Your task to perform on an android device: turn smart compose on in the gmail app Image 0: 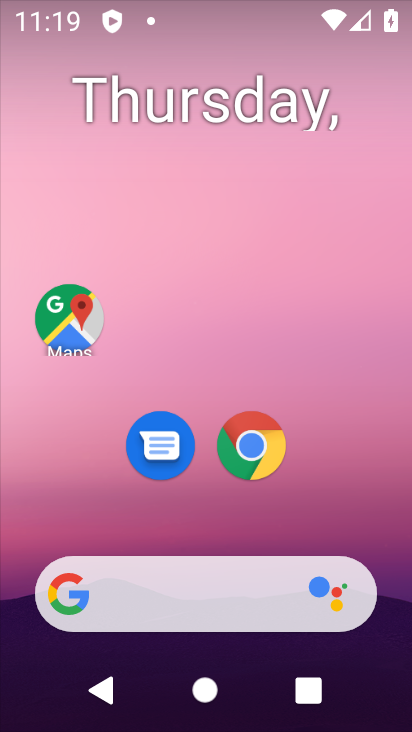
Step 0: drag from (354, 501) to (302, 109)
Your task to perform on an android device: turn smart compose on in the gmail app Image 1: 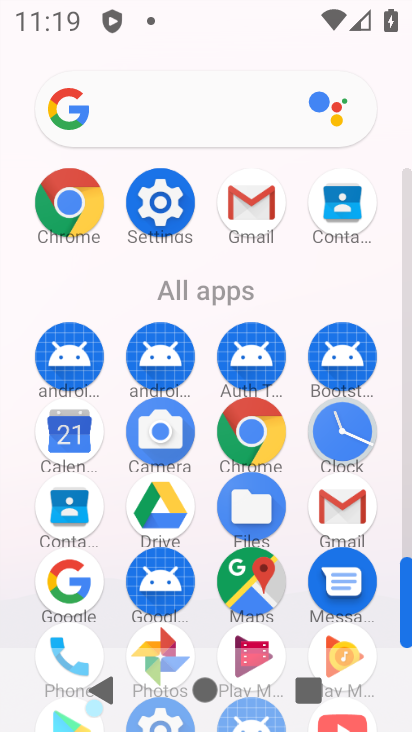
Step 1: click (252, 182)
Your task to perform on an android device: turn smart compose on in the gmail app Image 2: 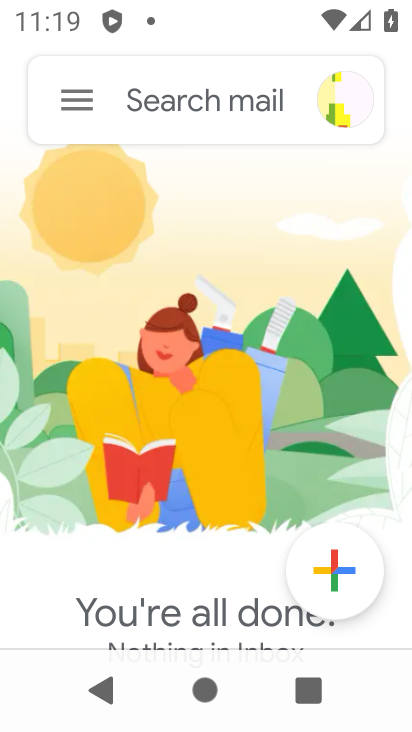
Step 2: click (55, 108)
Your task to perform on an android device: turn smart compose on in the gmail app Image 3: 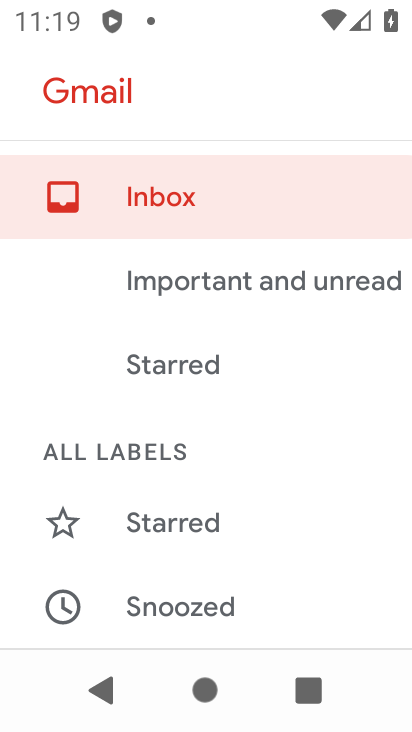
Step 3: drag from (229, 442) to (260, 173)
Your task to perform on an android device: turn smart compose on in the gmail app Image 4: 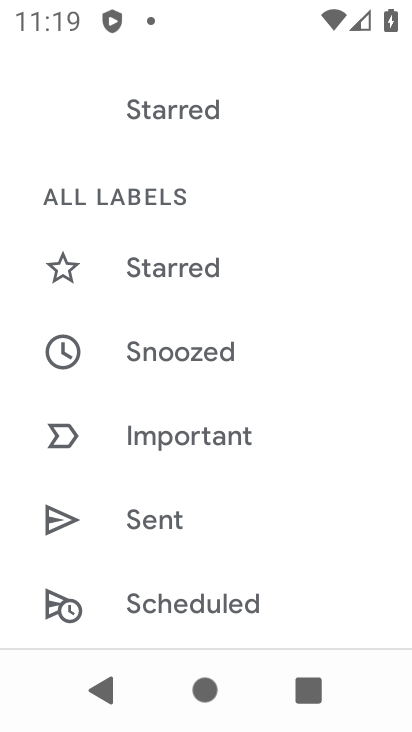
Step 4: drag from (284, 600) to (265, 174)
Your task to perform on an android device: turn smart compose on in the gmail app Image 5: 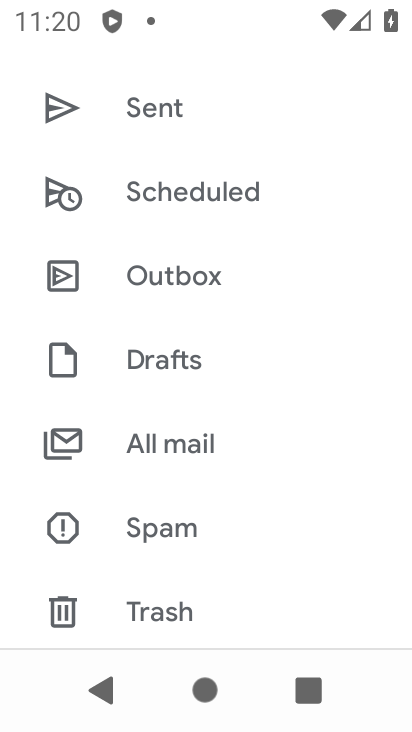
Step 5: drag from (217, 607) to (287, 198)
Your task to perform on an android device: turn smart compose on in the gmail app Image 6: 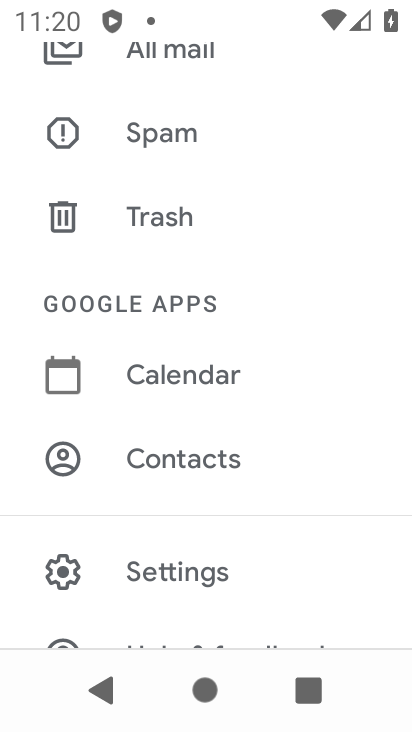
Step 6: drag from (197, 460) to (214, 177)
Your task to perform on an android device: turn smart compose on in the gmail app Image 7: 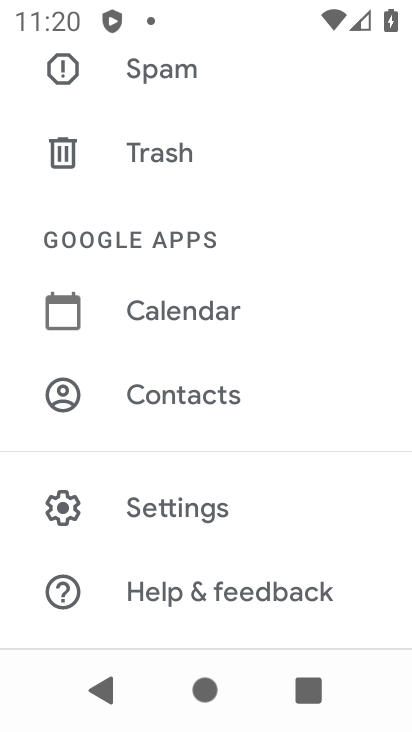
Step 7: click (144, 503)
Your task to perform on an android device: turn smart compose on in the gmail app Image 8: 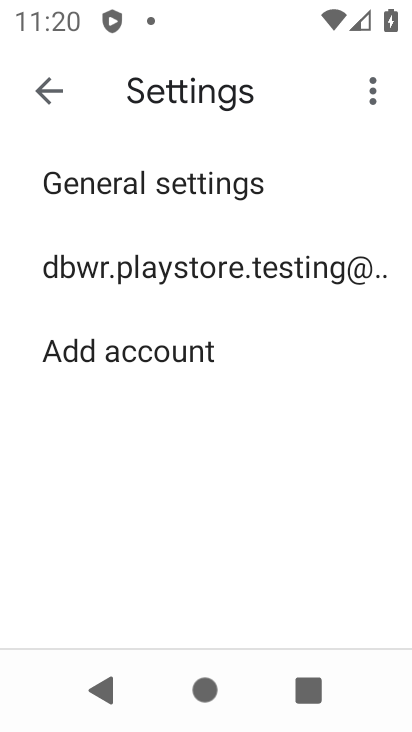
Step 8: click (207, 258)
Your task to perform on an android device: turn smart compose on in the gmail app Image 9: 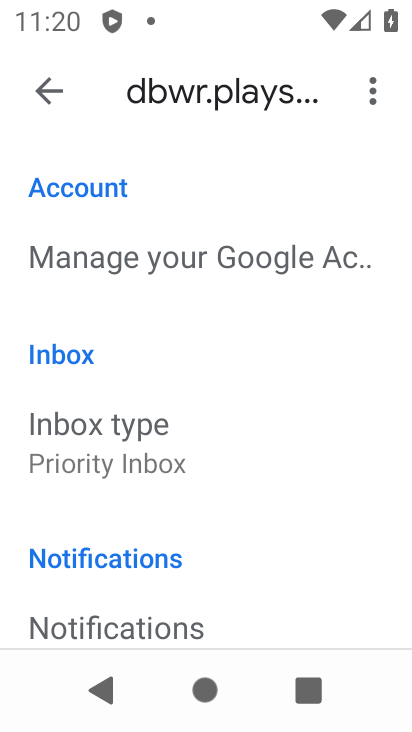
Step 9: task complete